Your task to perform on an android device: What's the weather? Image 0: 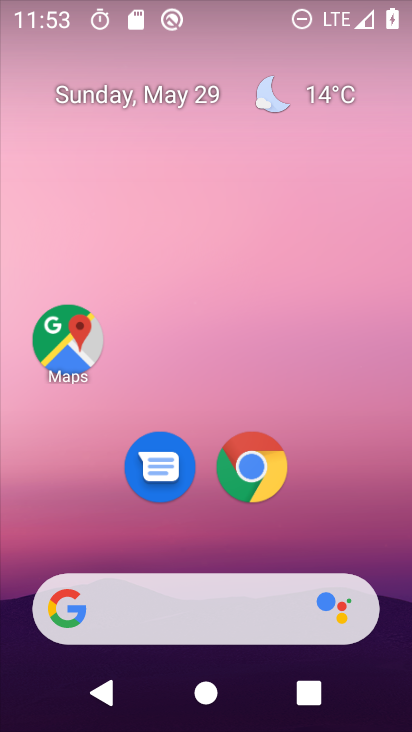
Step 0: drag from (226, 542) to (155, 123)
Your task to perform on an android device: What's the weather? Image 1: 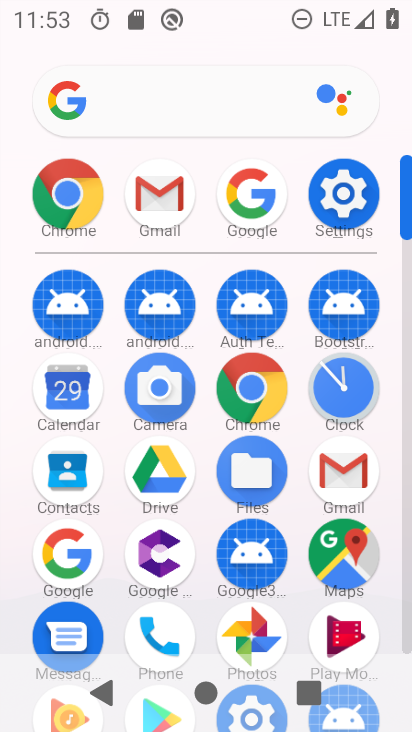
Step 1: click (260, 201)
Your task to perform on an android device: What's the weather? Image 2: 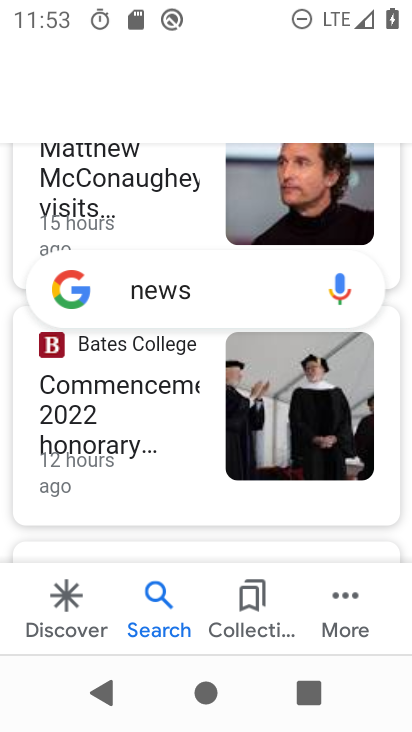
Step 2: drag from (175, 197) to (211, 520)
Your task to perform on an android device: What's the weather? Image 3: 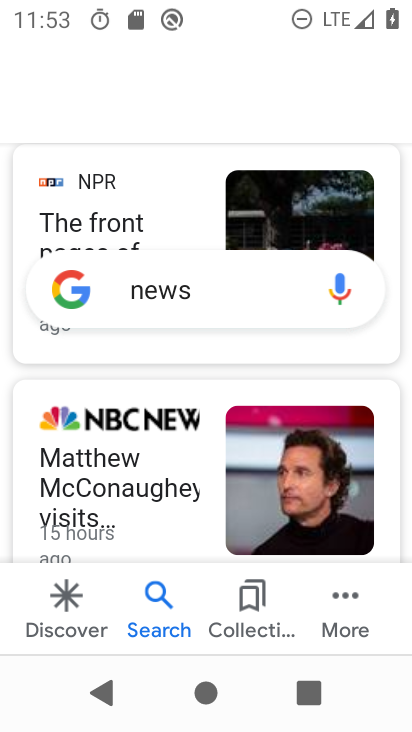
Step 3: drag from (176, 297) to (178, 468)
Your task to perform on an android device: What's the weather? Image 4: 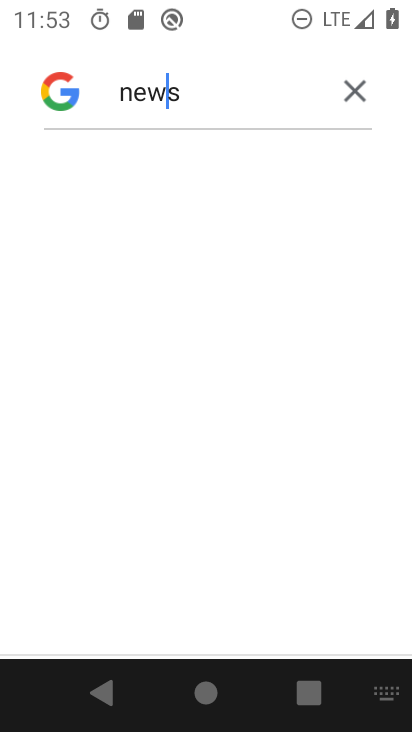
Step 4: click (217, 277)
Your task to perform on an android device: What's the weather? Image 5: 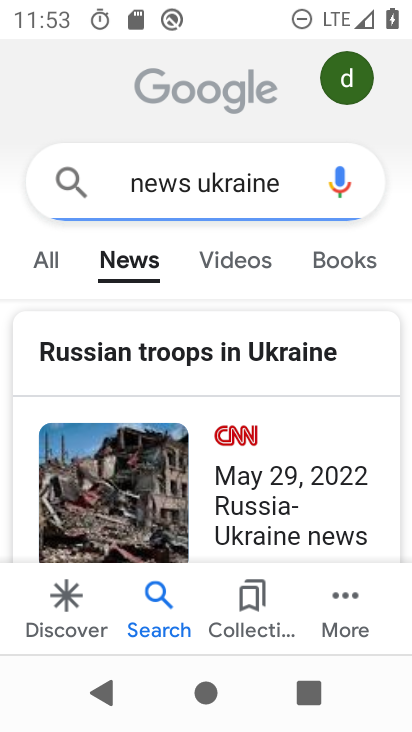
Step 5: click (232, 172)
Your task to perform on an android device: What's the weather? Image 6: 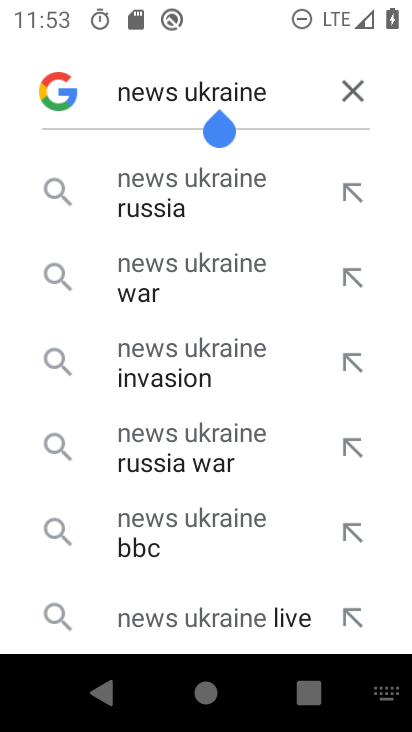
Step 6: click (348, 81)
Your task to perform on an android device: What's the weather? Image 7: 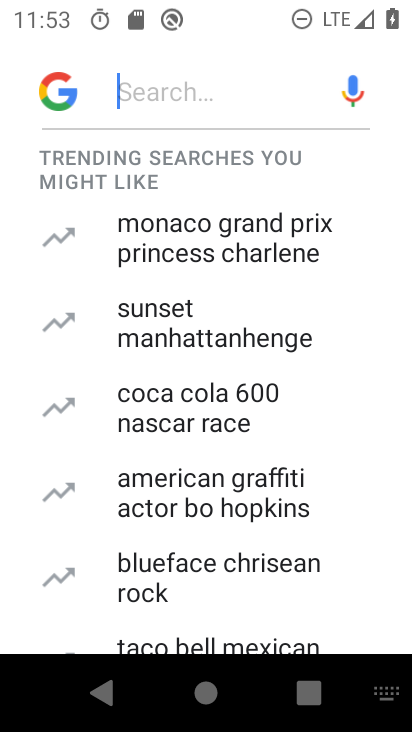
Step 7: click (206, 95)
Your task to perform on an android device: What's the weather? Image 8: 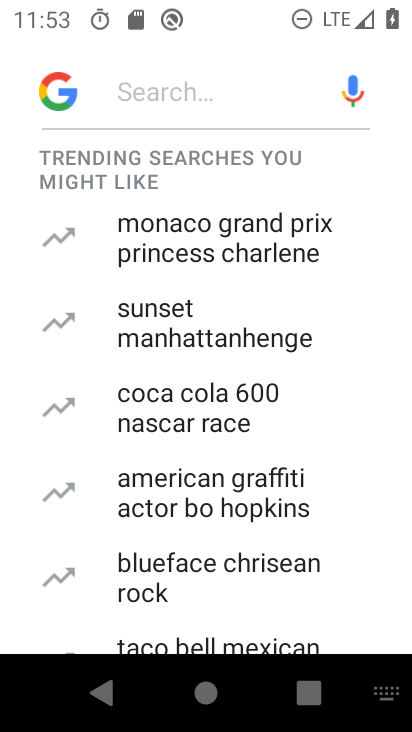
Step 8: type "weather"
Your task to perform on an android device: What's the weather? Image 9: 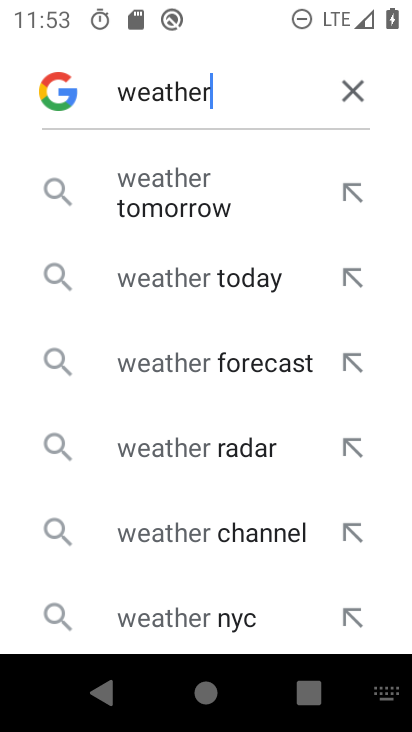
Step 9: click (182, 186)
Your task to perform on an android device: What's the weather? Image 10: 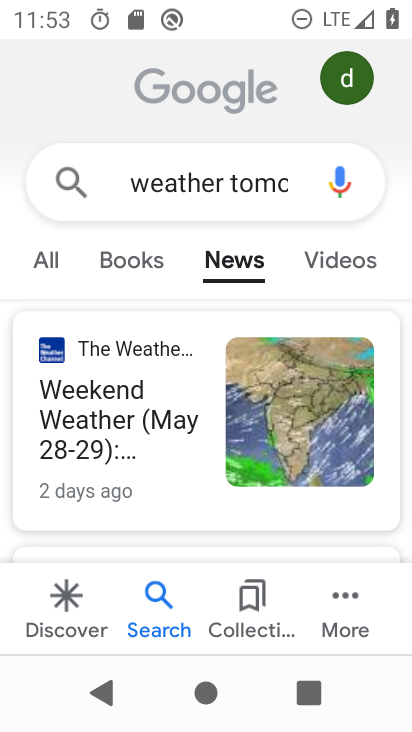
Step 10: click (56, 263)
Your task to perform on an android device: What's the weather? Image 11: 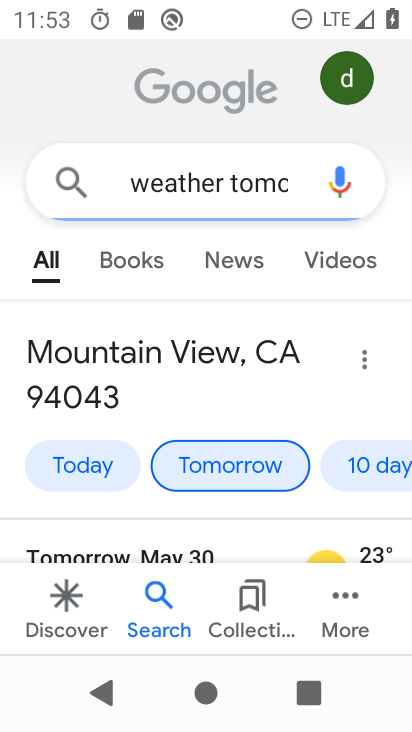
Step 11: drag from (202, 452) to (210, 209)
Your task to perform on an android device: What's the weather? Image 12: 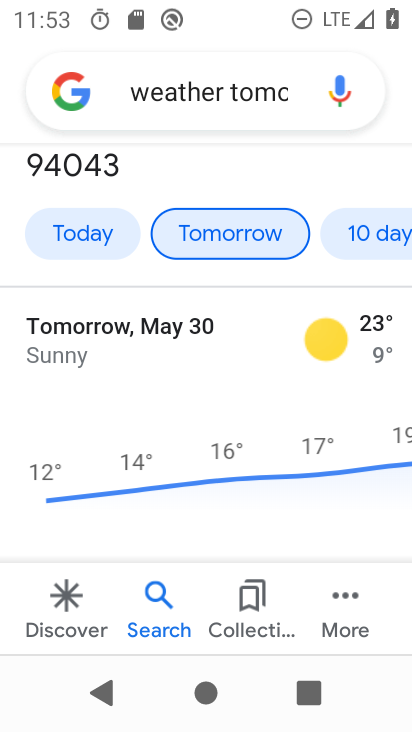
Step 12: drag from (230, 418) to (222, 215)
Your task to perform on an android device: What's the weather? Image 13: 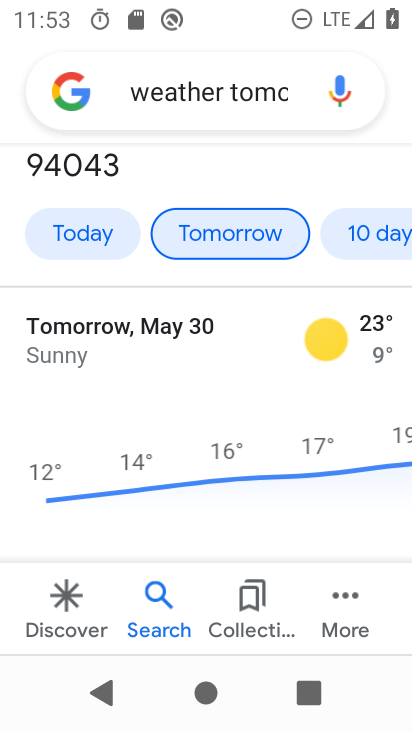
Step 13: click (110, 217)
Your task to perform on an android device: What's the weather? Image 14: 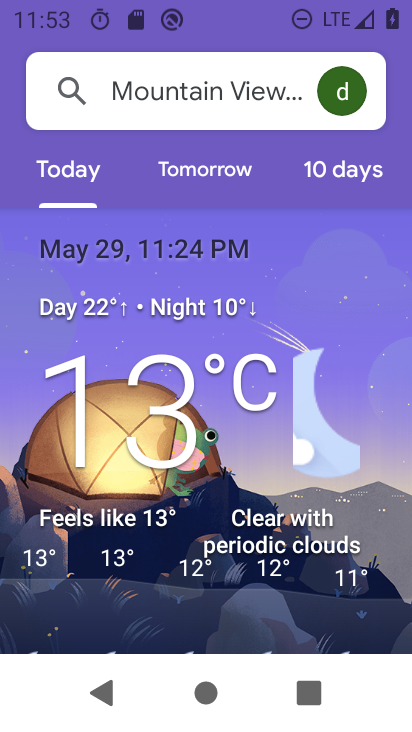
Step 14: task complete